Your task to perform on an android device: Search for the most popular books on Goodreads Image 0: 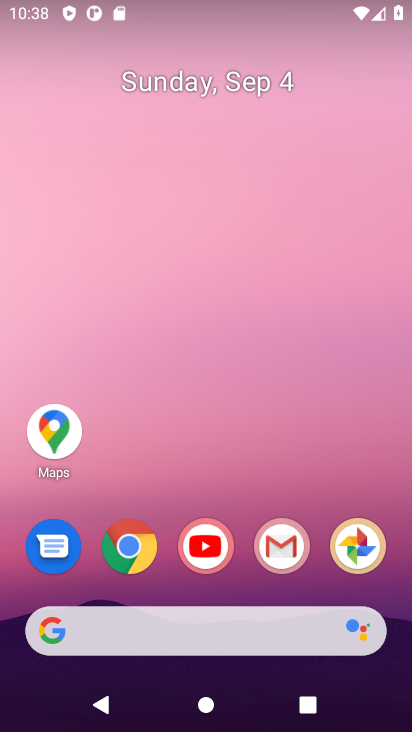
Step 0: click (133, 554)
Your task to perform on an android device: Search for the most popular books on Goodreads Image 1: 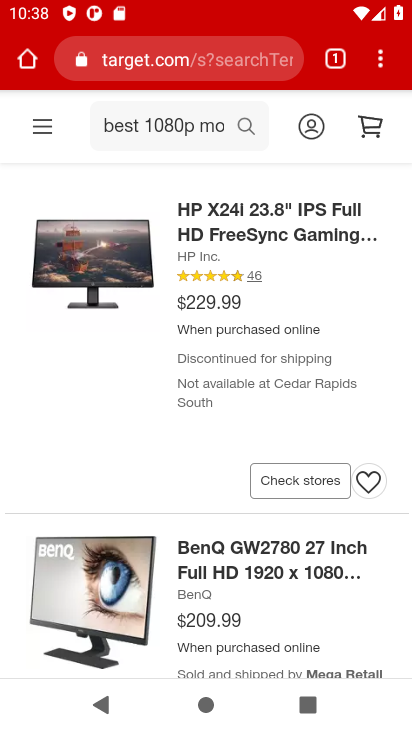
Step 1: click (200, 65)
Your task to perform on an android device: Search for the most popular books on Goodreads Image 2: 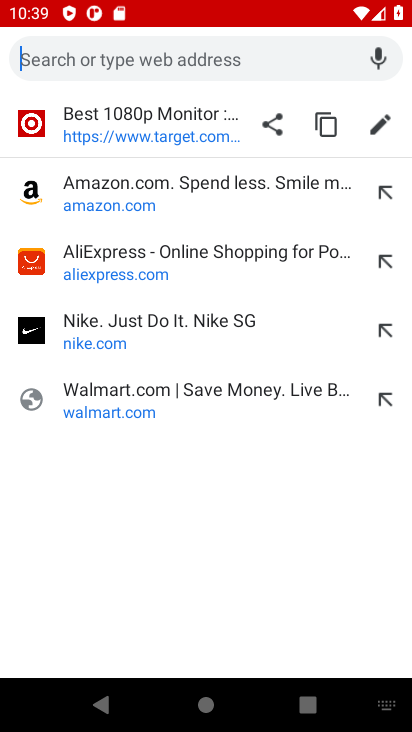
Step 2: type "Goodreads"
Your task to perform on an android device: Search for the most popular books on Goodreads Image 3: 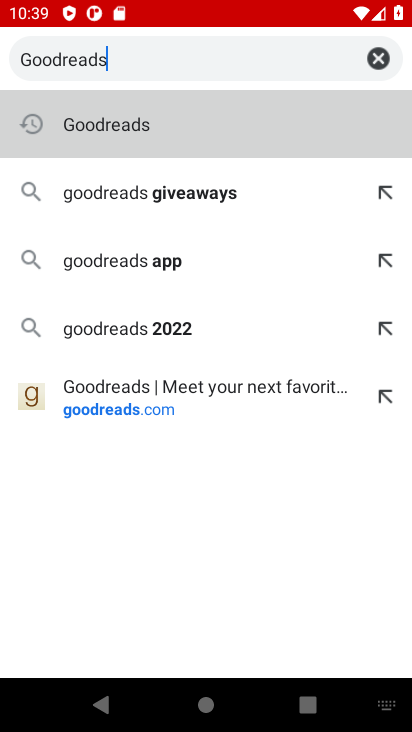
Step 3: click (104, 136)
Your task to perform on an android device: Search for the most popular books on Goodreads Image 4: 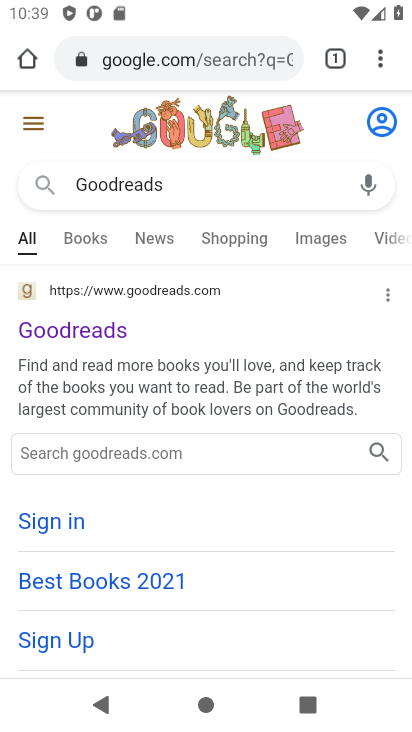
Step 4: click (57, 333)
Your task to perform on an android device: Search for the most popular books on Goodreads Image 5: 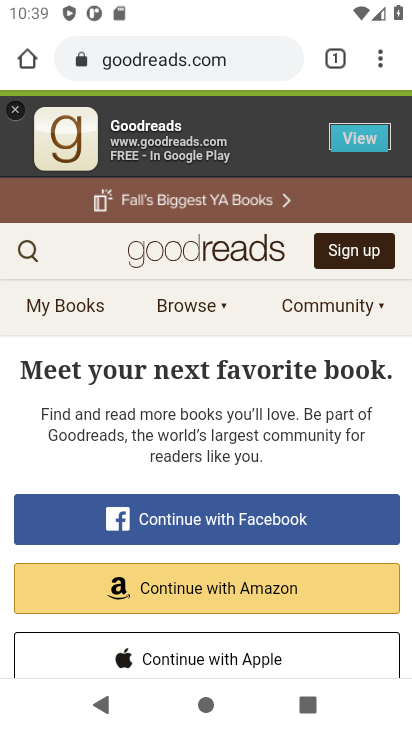
Step 5: click (26, 255)
Your task to perform on an android device: Search for the most popular books on Goodreads Image 6: 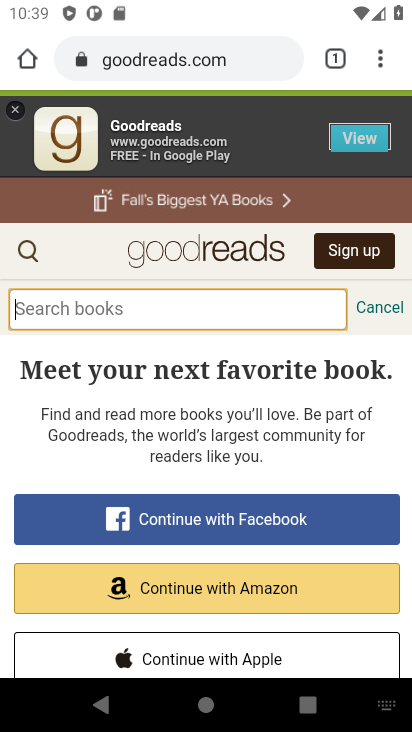
Step 6: type " most popular books"
Your task to perform on an android device: Search for the most popular books on Goodreads Image 7: 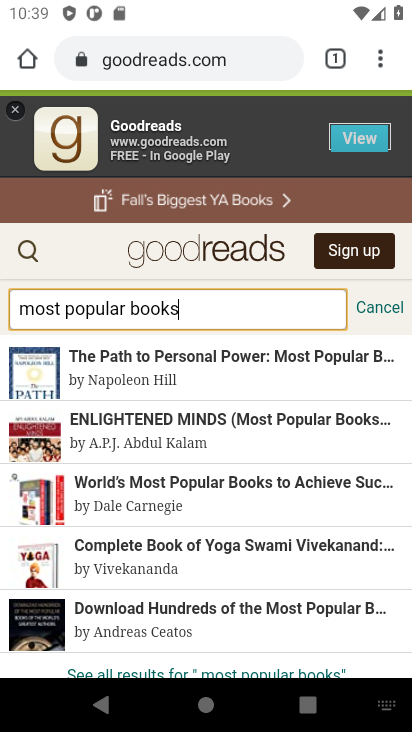
Step 7: drag from (290, 548) to (271, 350)
Your task to perform on an android device: Search for the most popular books on Goodreads Image 8: 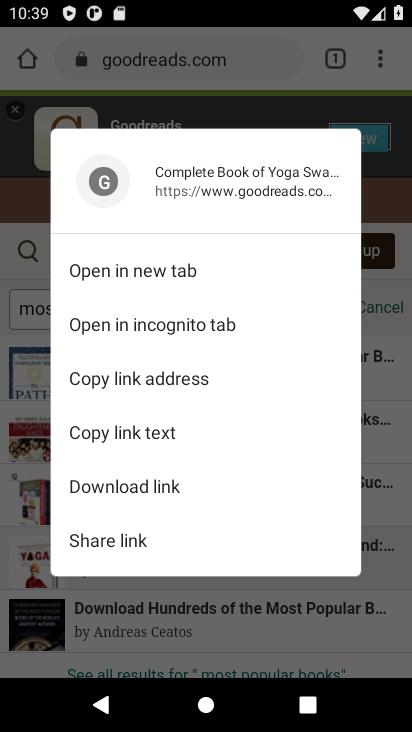
Step 8: click (399, 481)
Your task to perform on an android device: Search for the most popular books on Goodreads Image 9: 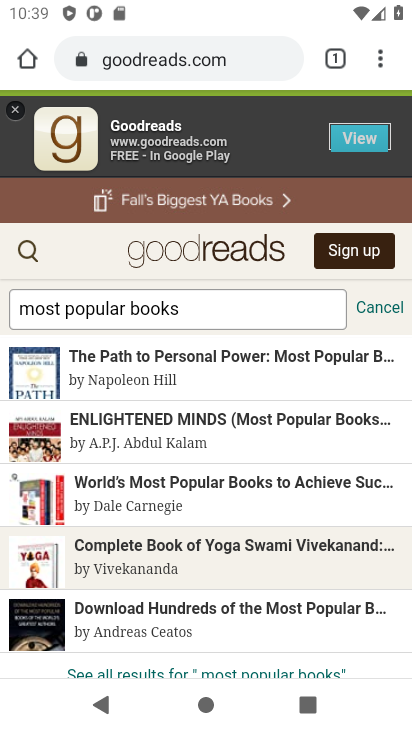
Step 9: task complete